Your task to perform on an android device: Open Chrome and go to settings Image 0: 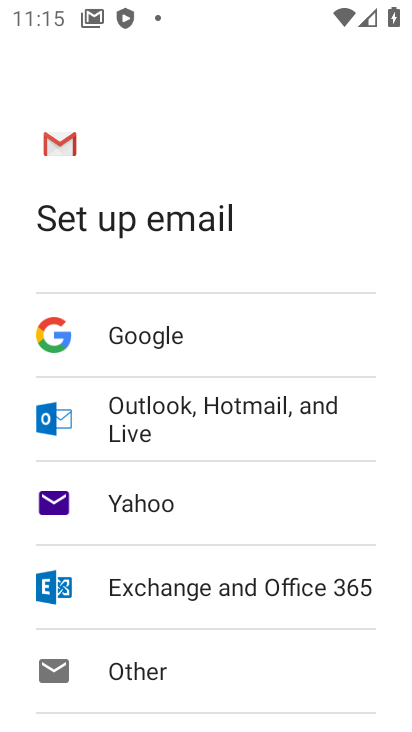
Step 0: press home button
Your task to perform on an android device: Open Chrome and go to settings Image 1: 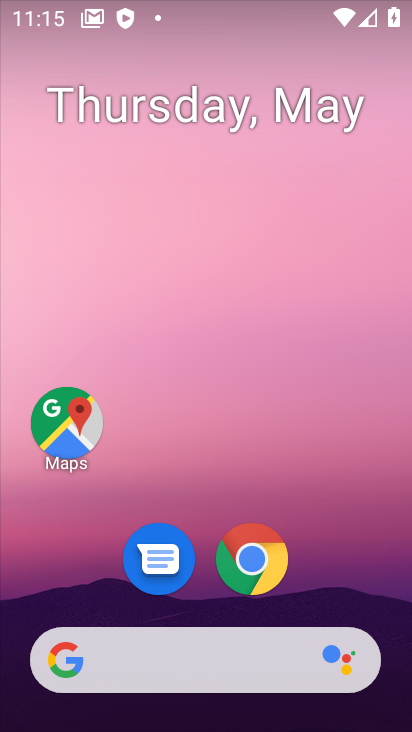
Step 1: click (251, 561)
Your task to perform on an android device: Open Chrome and go to settings Image 2: 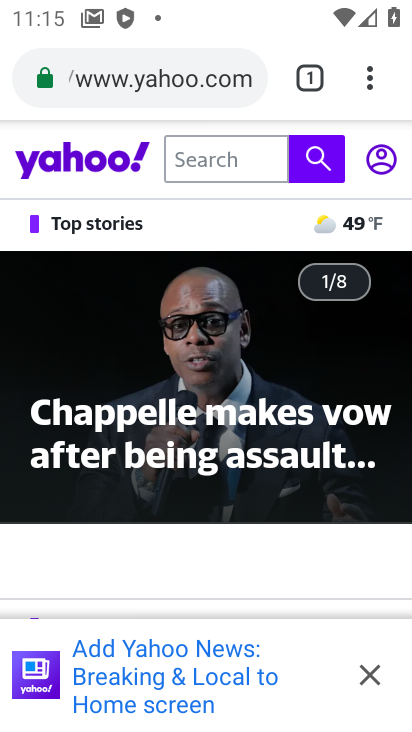
Step 2: task complete